Your task to perform on an android device: turn on wifi Image 0: 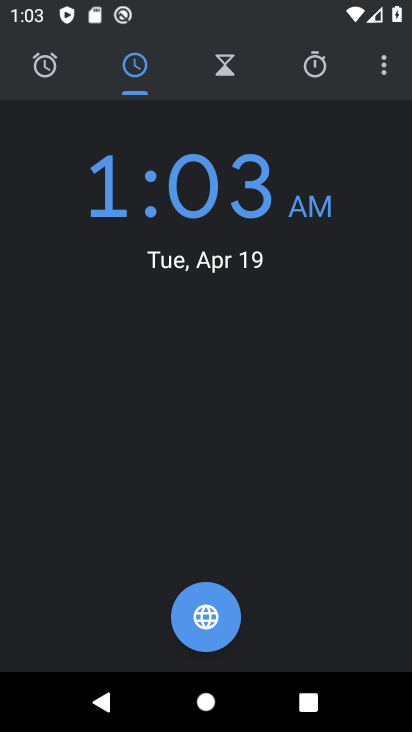
Step 0: drag from (255, 14) to (255, 346)
Your task to perform on an android device: turn on wifi Image 1: 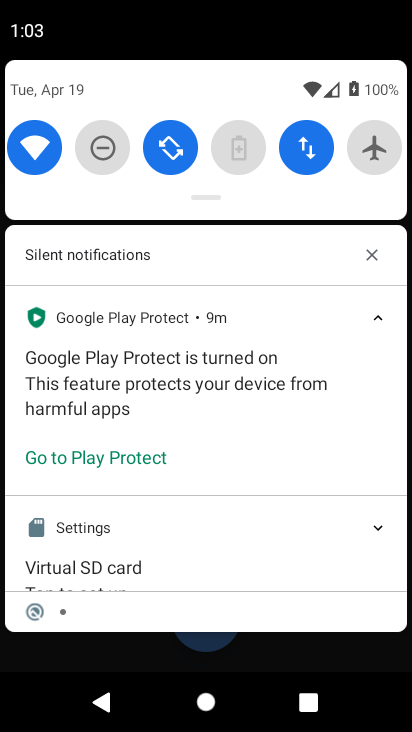
Step 1: click (38, 140)
Your task to perform on an android device: turn on wifi Image 2: 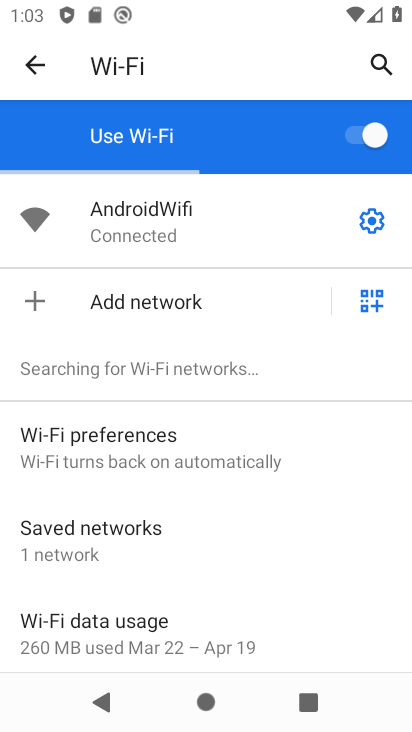
Step 2: task complete